Your task to perform on an android device: add a contact Image 0: 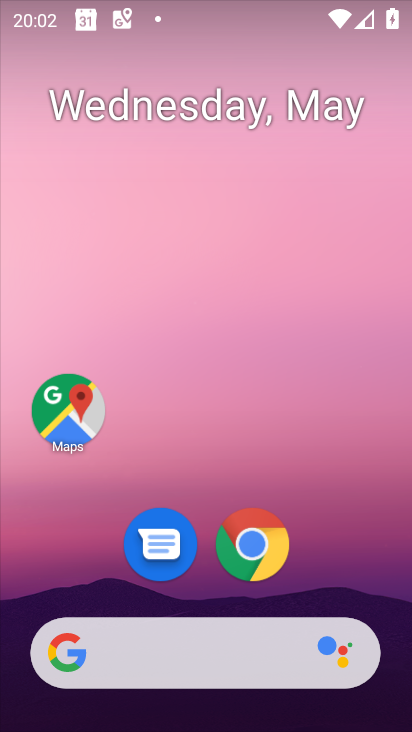
Step 0: drag from (212, 585) to (211, 346)
Your task to perform on an android device: add a contact Image 1: 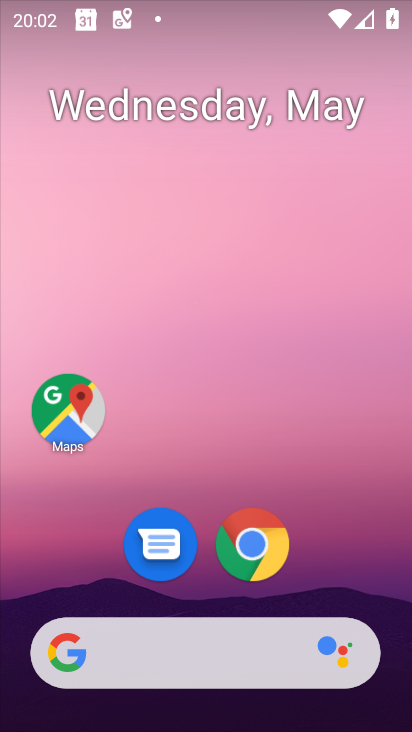
Step 1: drag from (212, 605) to (203, 184)
Your task to perform on an android device: add a contact Image 2: 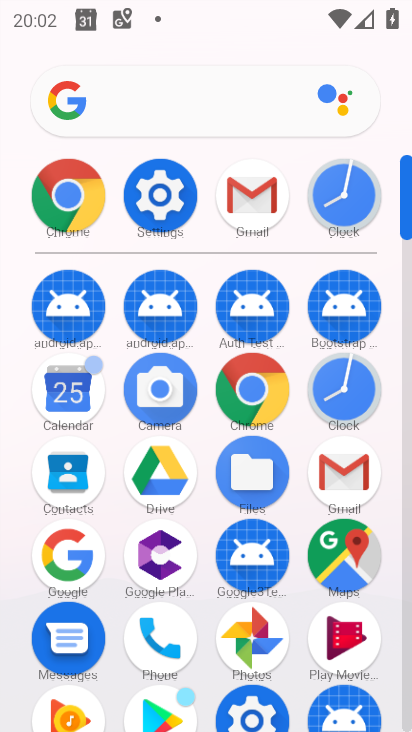
Step 2: click (72, 467)
Your task to perform on an android device: add a contact Image 3: 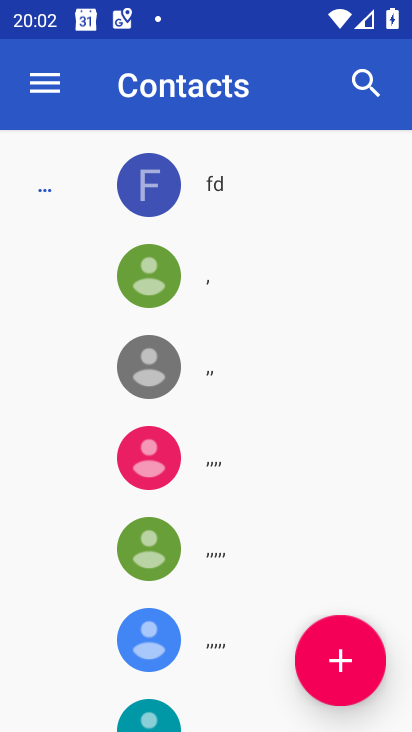
Step 3: click (346, 668)
Your task to perform on an android device: add a contact Image 4: 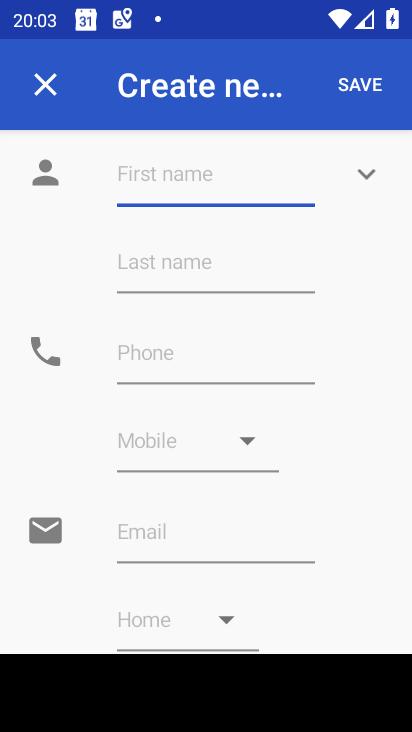
Step 4: type "iuyghjn"
Your task to perform on an android device: add a contact Image 5: 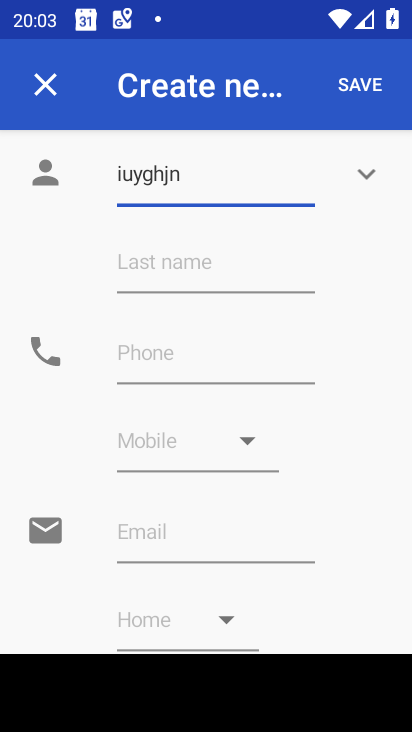
Step 5: click (128, 363)
Your task to perform on an android device: add a contact Image 6: 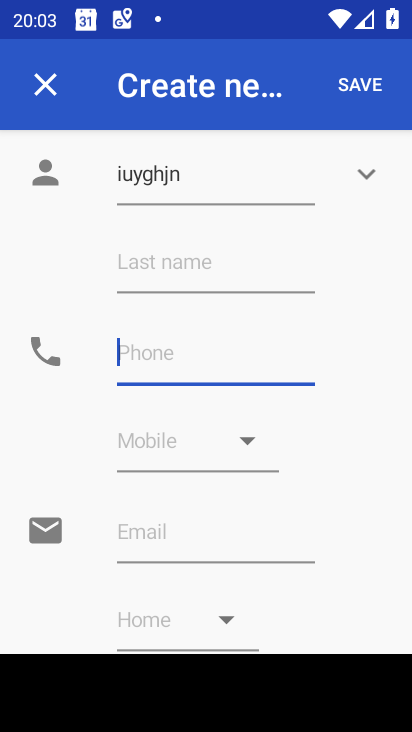
Step 6: type "9876545678"
Your task to perform on an android device: add a contact Image 7: 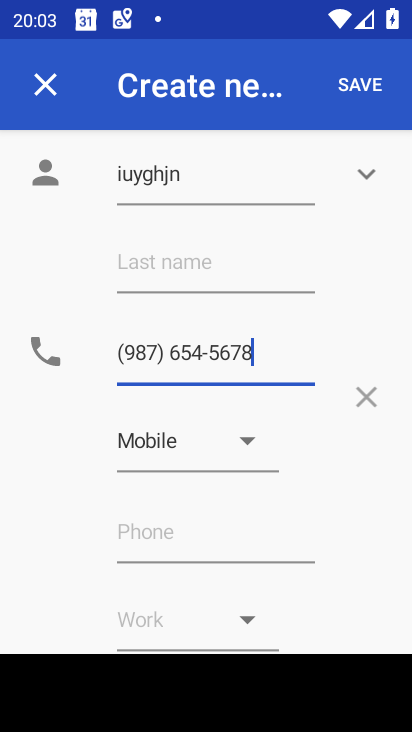
Step 7: click (370, 72)
Your task to perform on an android device: add a contact Image 8: 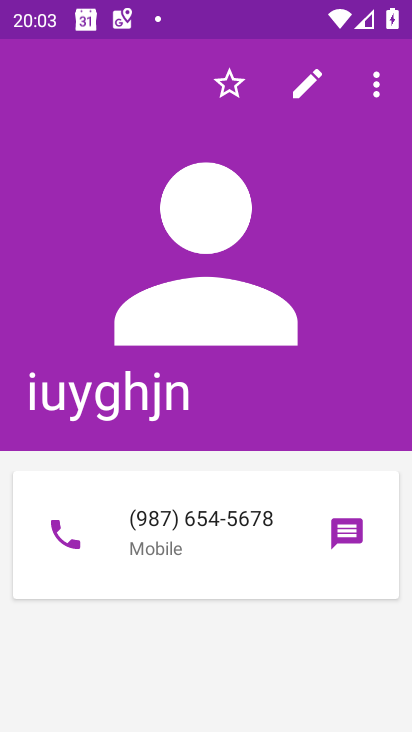
Step 8: task complete